Your task to perform on an android device: Open internet settings Image 0: 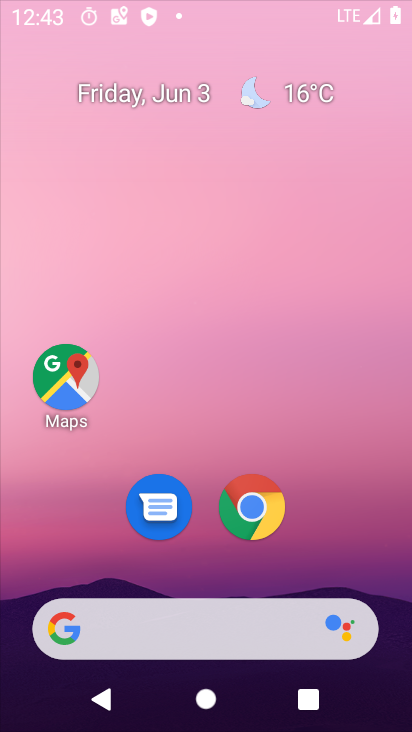
Step 0: click (300, 2)
Your task to perform on an android device: Open internet settings Image 1: 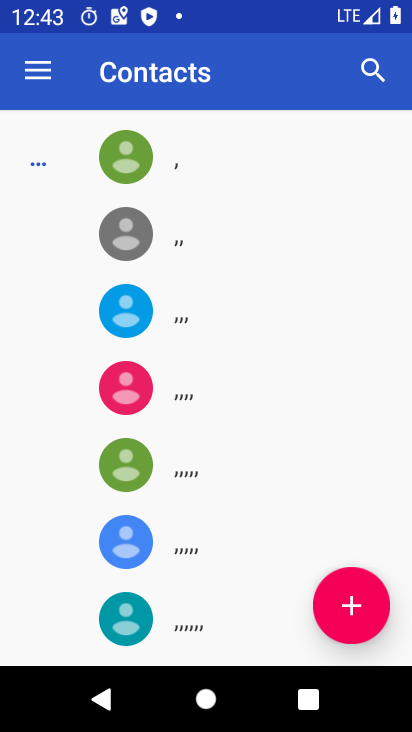
Step 1: press home button
Your task to perform on an android device: Open internet settings Image 2: 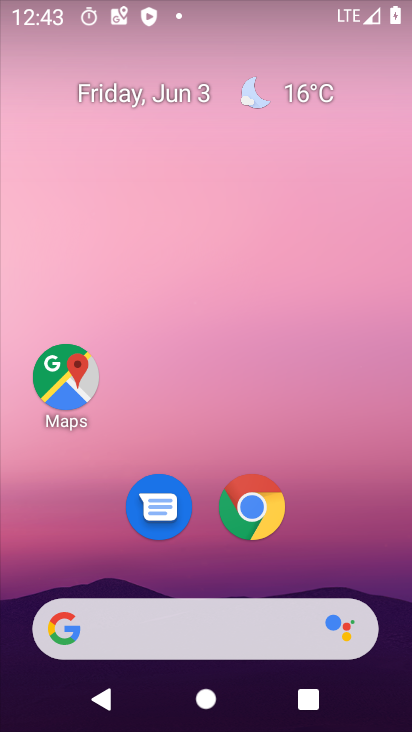
Step 2: drag from (396, 633) to (230, 49)
Your task to perform on an android device: Open internet settings Image 3: 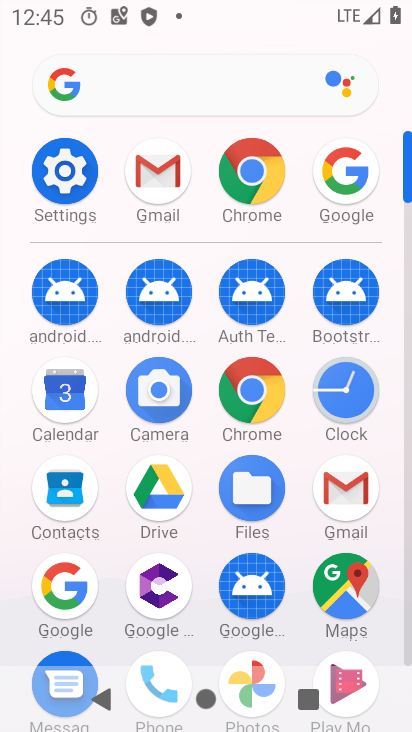
Step 3: click (77, 176)
Your task to perform on an android device: Open internet settings Image 4: 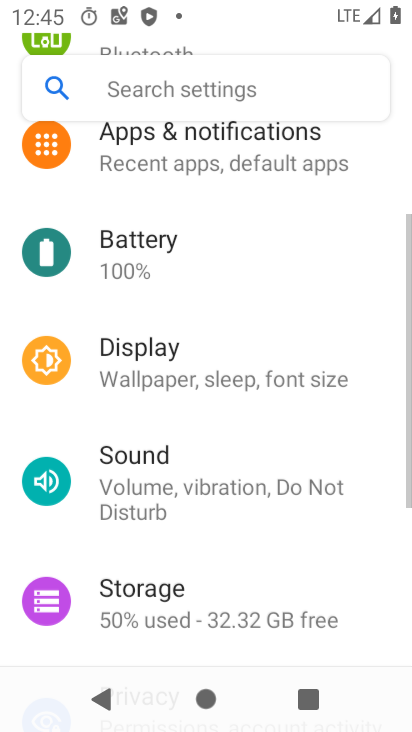
Step 4: drag from (210, 173) to (240, 634)
Your task to perform on an android device: Open internet settings Image 5: 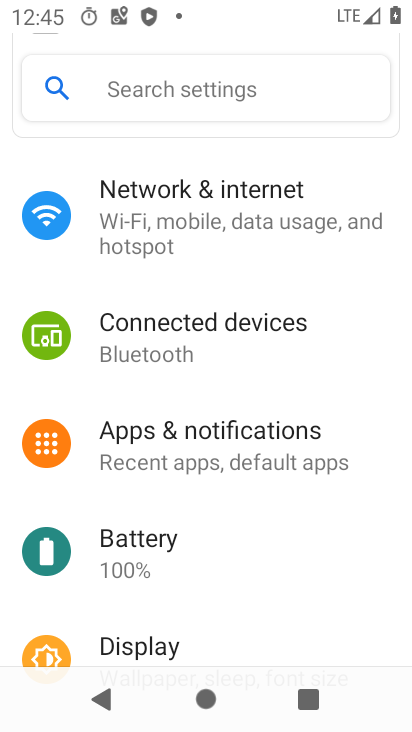
Step 5: click (194, 204)
Your task to perform on an android device: Open internet settings Image 6: 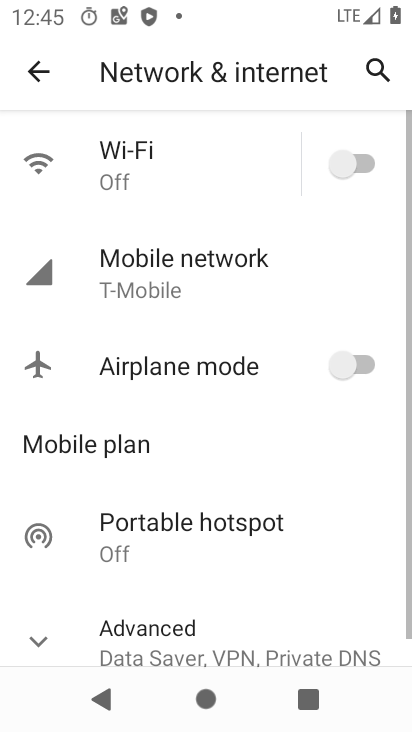
Step 6: task complete